Your task to perform on an android device: check the backup settings in the google photos Image 0: 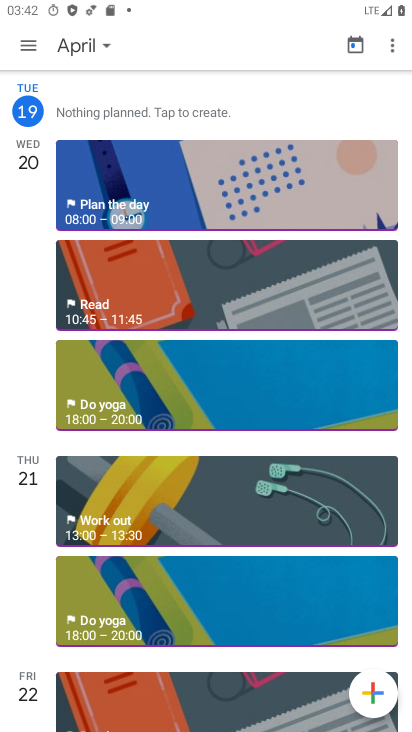
Step 0: press home button
Your task to perform on an android device: check the backup settings in the google photos Image 1: 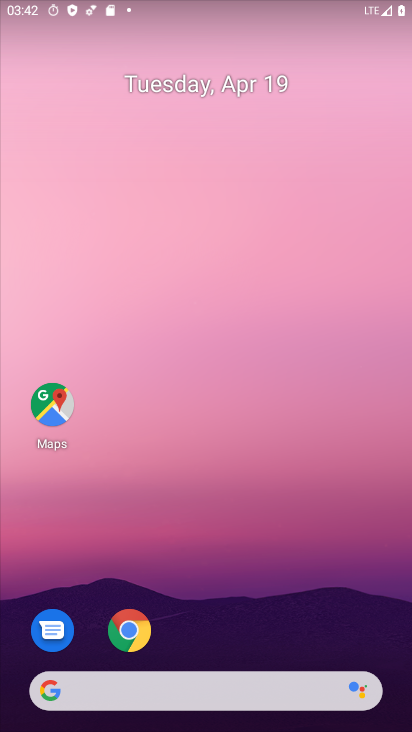
Step 1: drag from (219, 653) to (176, 53)
Your task to perform on an android device: check the backup settings in the google photos Image 2: 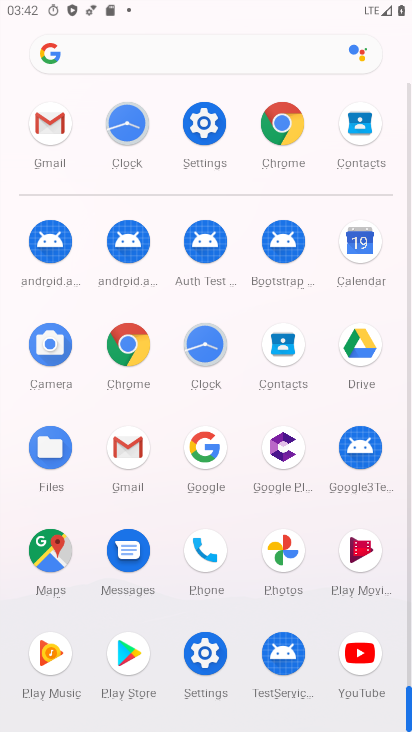
Step 2: click (295, 550)
Your task to perform on an android device: check the backup settings in the google photos Image 3: 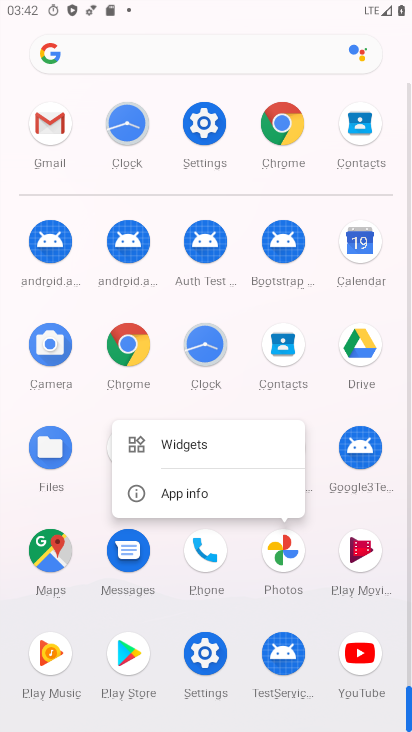
Step 3: click (283, 541)
Your task to perform on an android device: check the backup settings in the google photos Image 4: 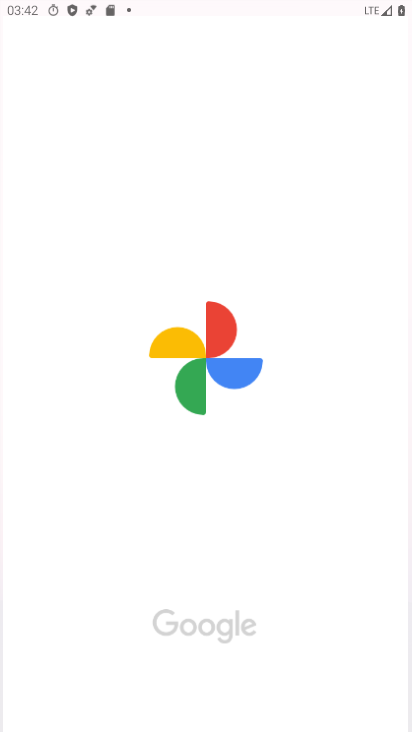
Step 4: click (283, 541)
Your task to perform on an android device: check the backup settings in the google photos Image 5: 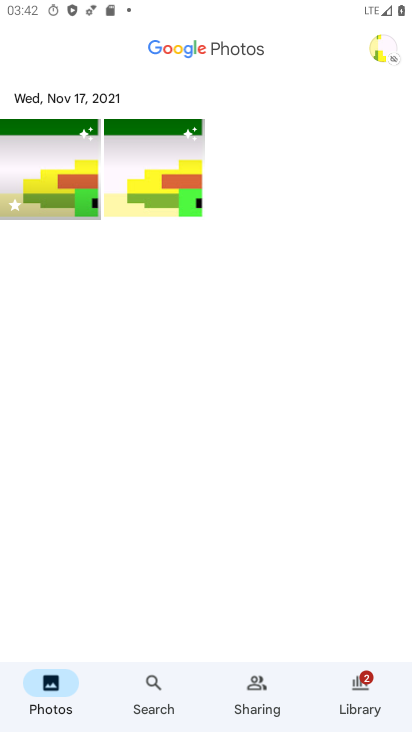
Step 5: click (394, 43)
Your task to perform on an android device: check the backup settings in the google photos Image 6: 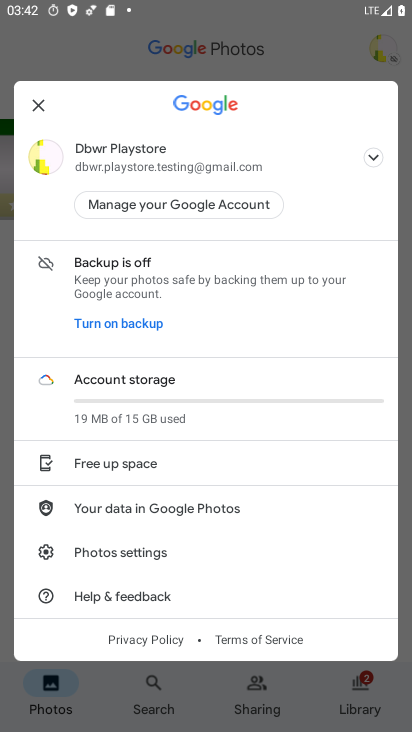
Step 6: click (122, 155)
Your task to perform on an android device: check the backup settings in the google photos Image 7: 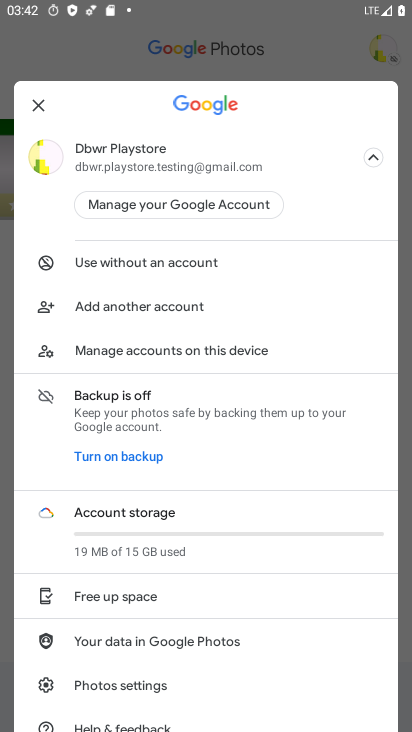
Step 7: click (82, 415)
Your task to perform on an android device: check the backup settings in the google photos Image 8: 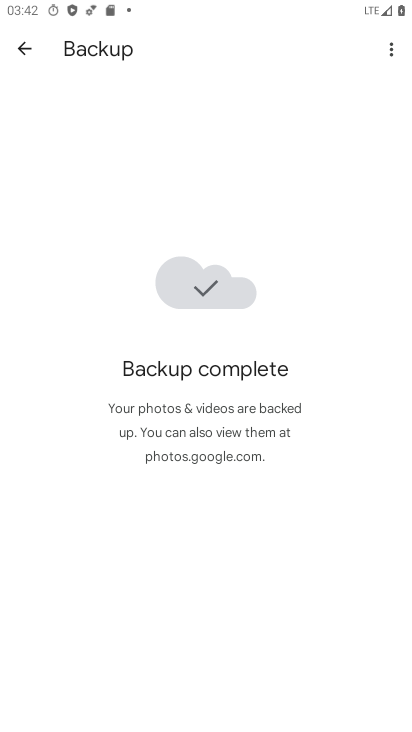
Step 8: click (397, 43)
Your task to perform on an android device: check the backup settings in the google photos Image 9: 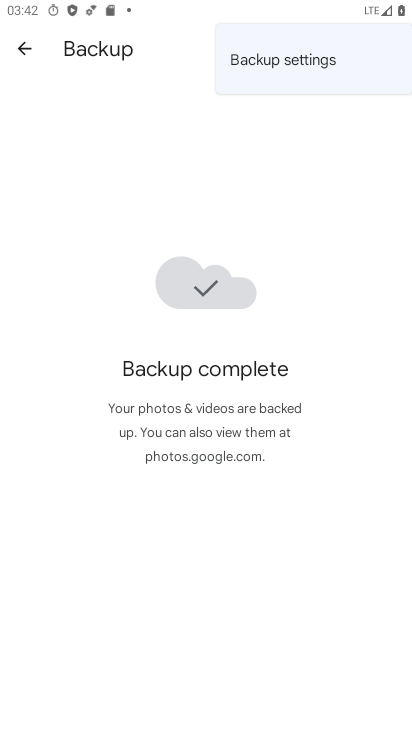
Step 9: click (334, 51)
Your task to perform on an android device: check the backup settings in the google photos Image 10: 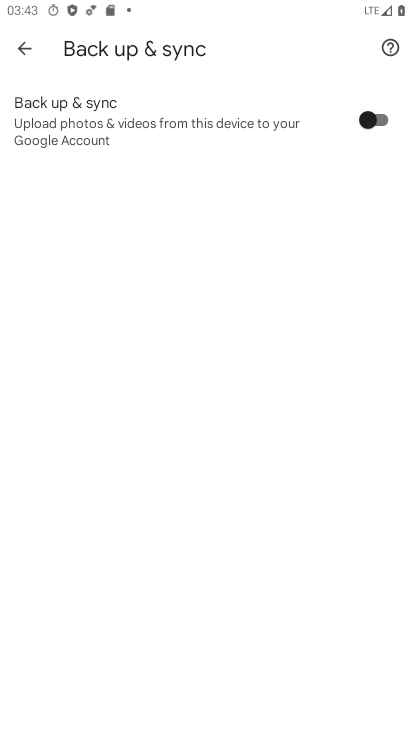
Step 10: task complete